Your task to perform on an android device: Clear the cart on newegg.com. Add macbook to the cart on newegg.com Image 0: 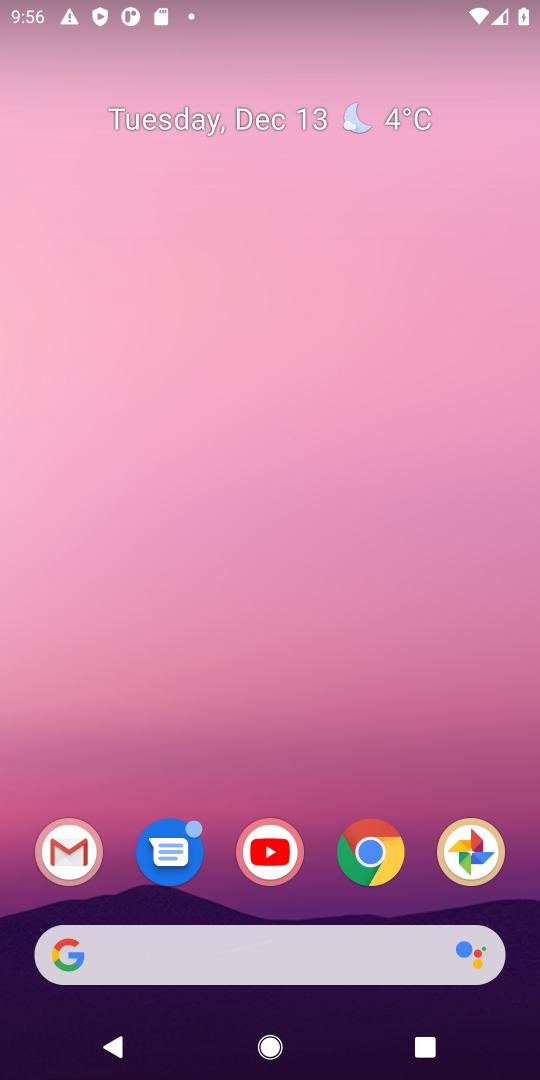
Step 0: press home button
Your task to perform on an android device: Clear the cart on newegg.com. Add macbook to the cart on newegg.com Image 1: 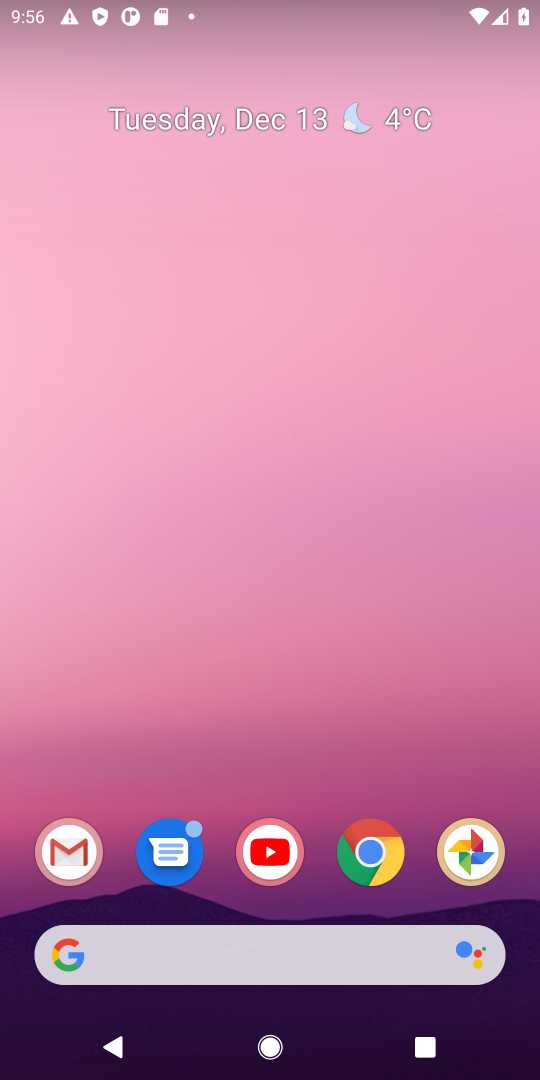
Step 1: click (111, 945)
Your task to perform on an android device: Clear the cart on newegg.com. Add macbook to the cart on newegg.com Image 2: 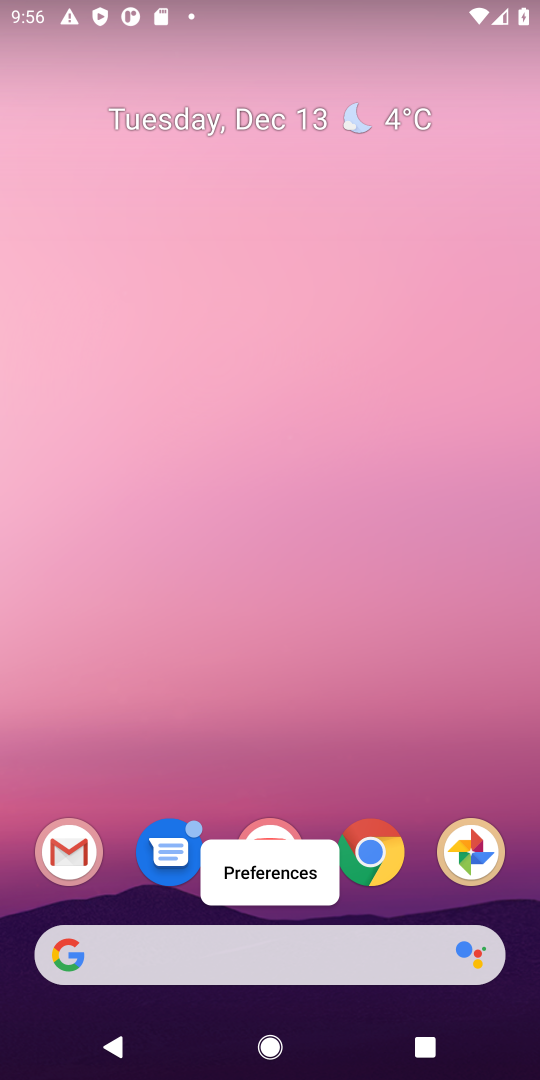
Step 2: click (120, 961)
Your task to perform on an android device: Clear the cart on newegg.com. Add macbook to the cart on newegg.com Image 3: 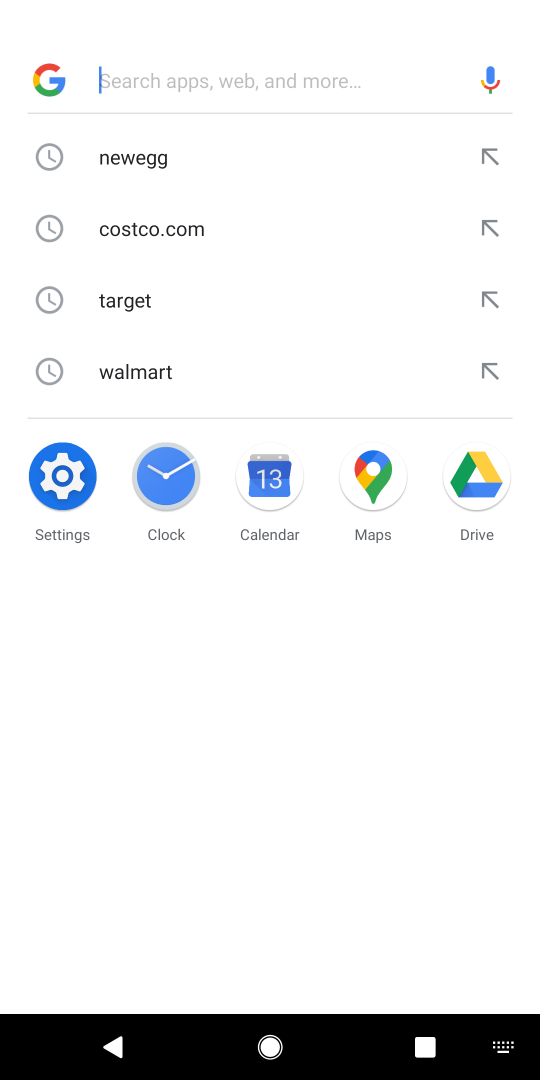
Step 3: type "newegg.com"
Your task to perform on an android device: Clear the cart on newegg.com. Add macbook to the cart on newegg.com Image 4: 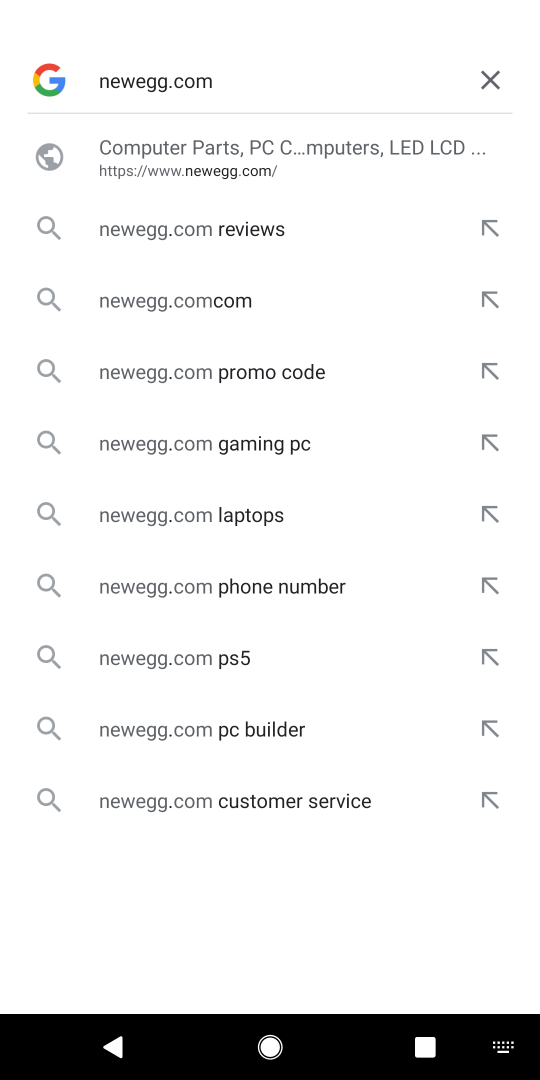
Step 4: press enter
Your task to perform on an android device: Clear the cart on newegg.com. Add macbook to the cart on newegg.com Image 5: 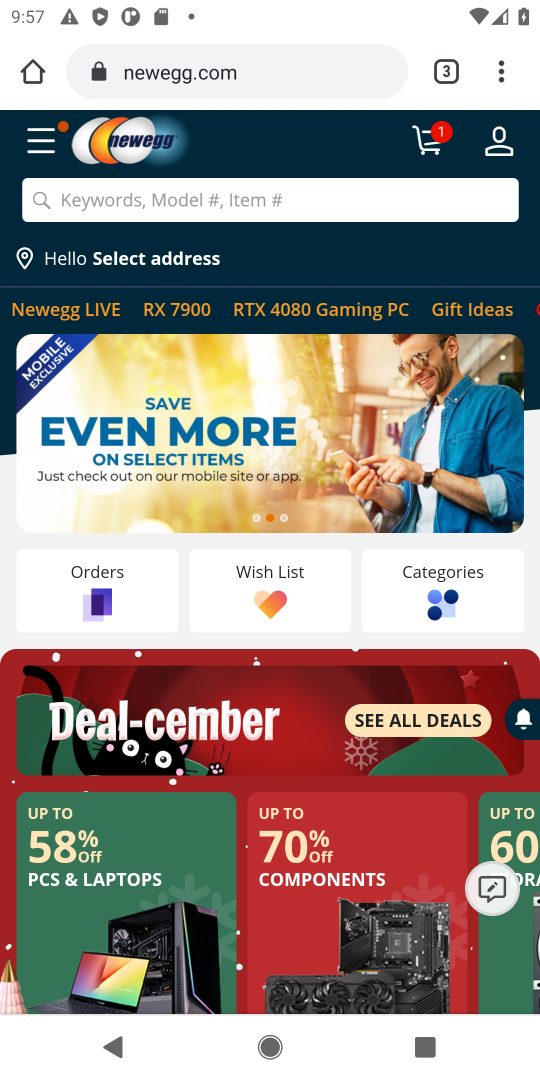
Step 5: click (431, 147)
Your task to perform on an android device: Clear the cart on newegg.com. Add macbook to the cart on newegg.com Image 6: 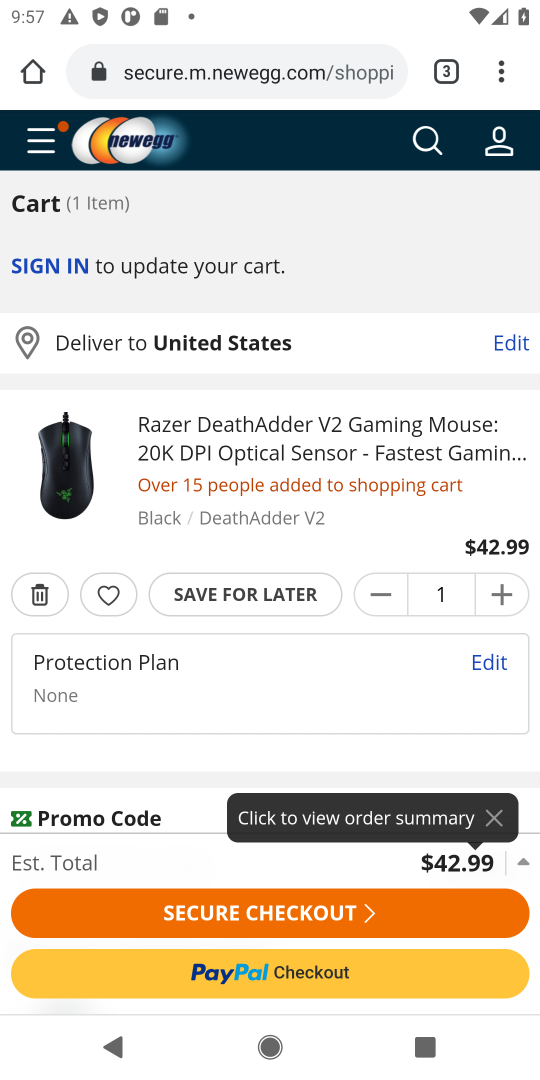
Step 6: click (38, 591)
Your task to perform on an android device: Clear the cart on newegg.com. Add macbook to the cart on newegg.com Image 7: 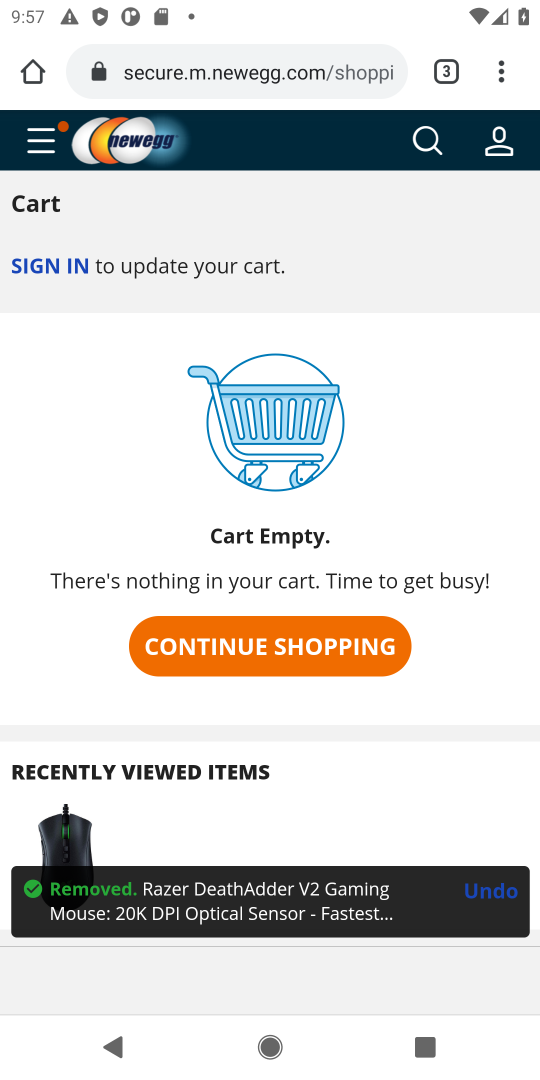
Step 7: click (425, 144)
Your task to perform on an android device: Clear the cart on newegg.com. Add macbook to the cart on newegg.com Image 8: 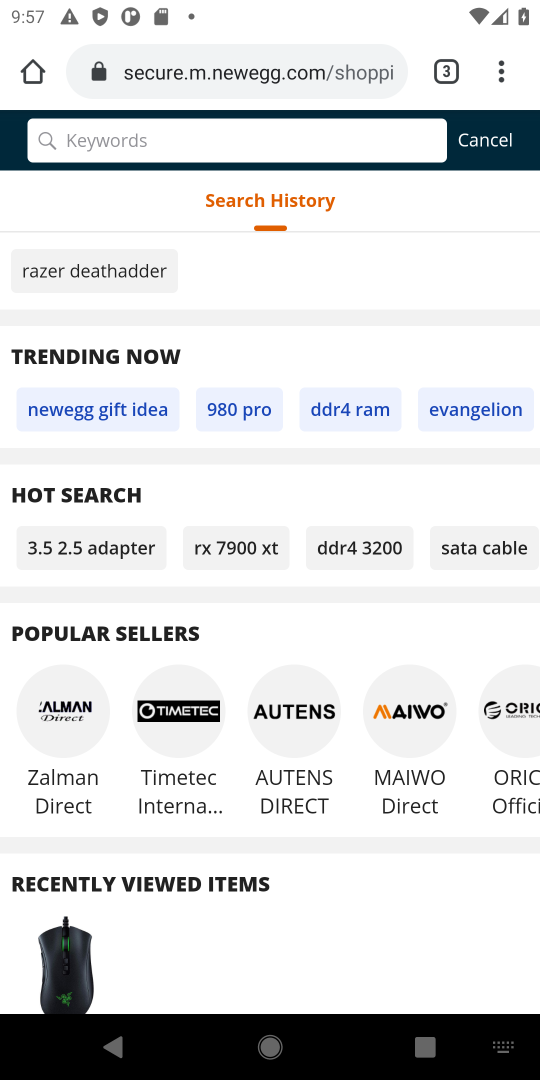
Step 8: type "macbook"
Your task to perform on an android device: Clear the cart on newegg.com. Add macbook to the cart on newegg.com Image 9: 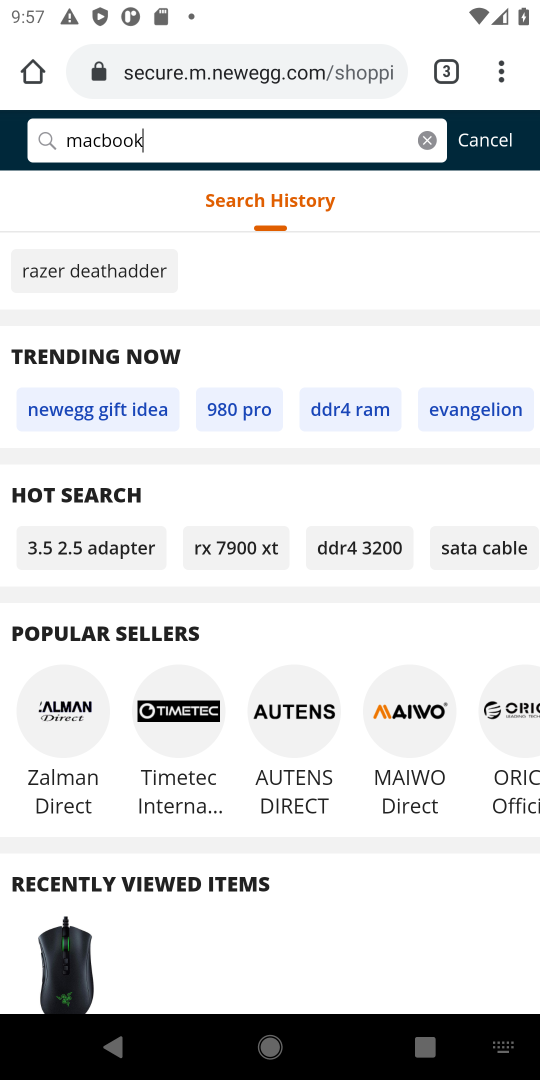
Step 9: press enter
Your task to perform on an android device: Clear the cart on newegg.com. Add macbook to the cart on newegg.com Image 10: 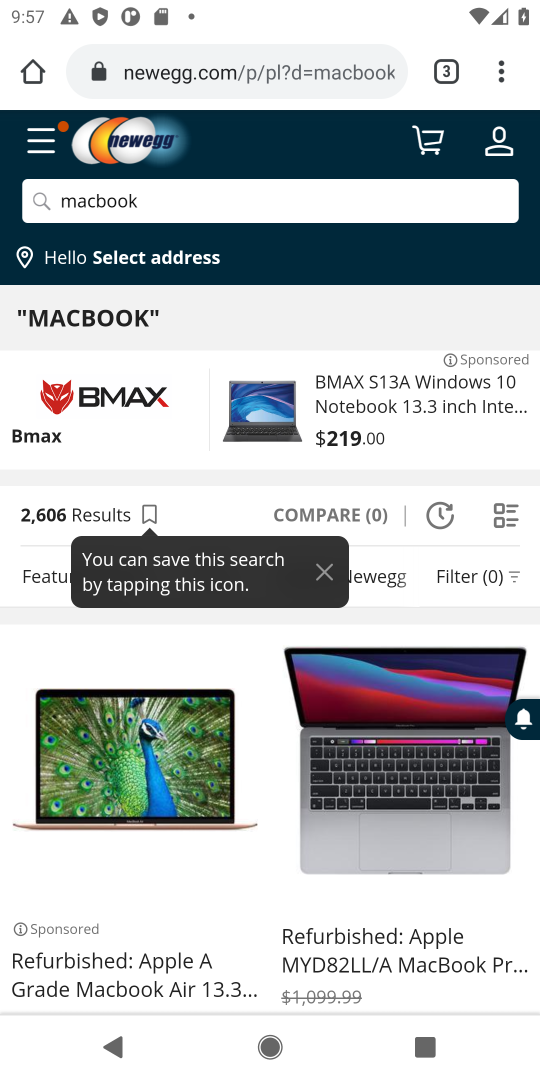
Step 10: drag from (388, 926) to (392, 512)
Your task to perform on an android device: Clear the cart on newegg.com. Add macbook to the cart on newegg.com Image 11: 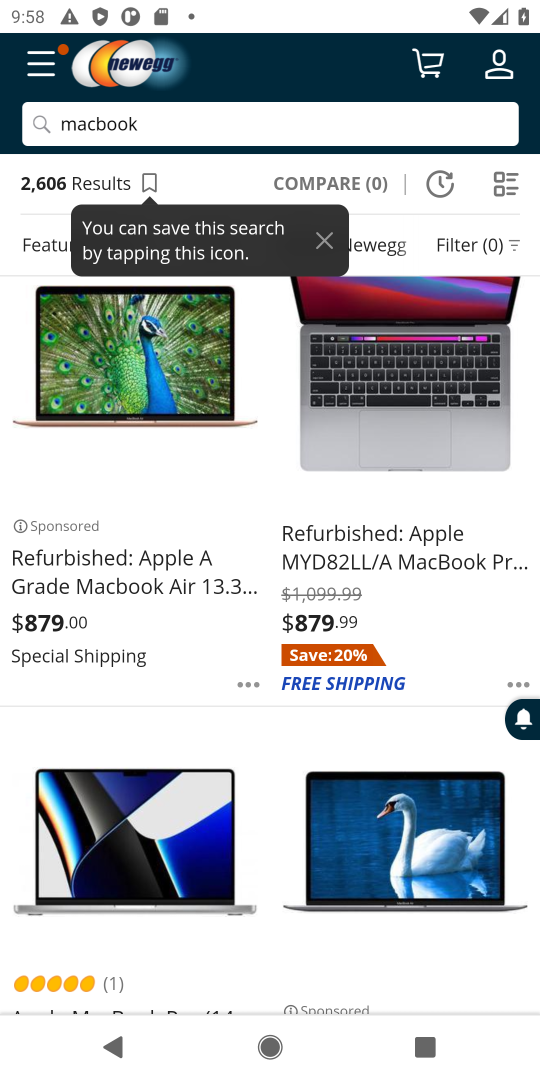
Step 11: drag from (279, 885) to (283, 377)
Your task to perform on an android device: Clear the cart on newegg.com. Add macbook to the cart on newegg.com Image 12: 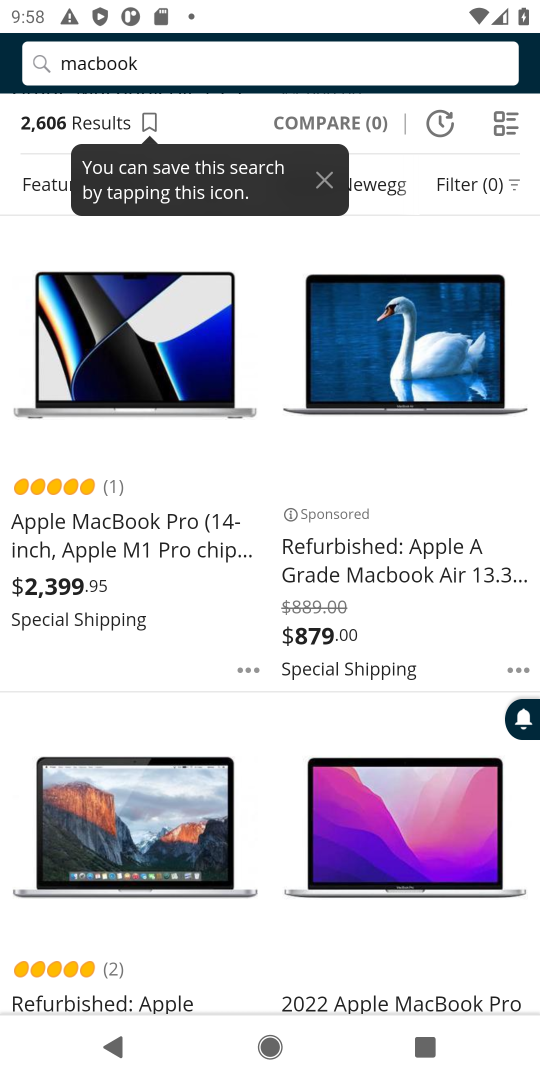
Step 12: click (67, 546)
Your task to perform on an android device: Clear the cart on newegg.com. Add macbook to the cart on newegg.com Image 13: 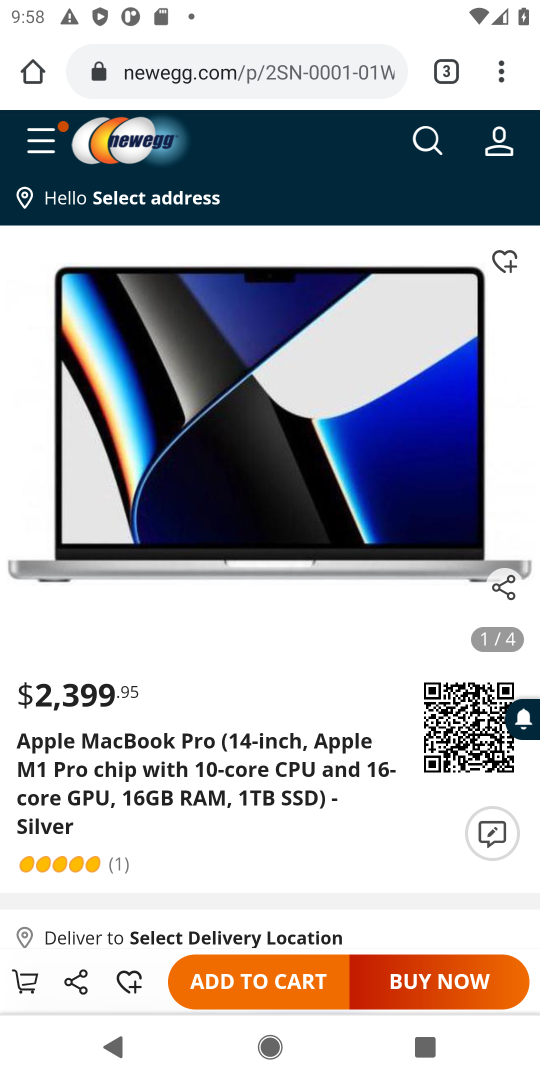
Step 13: drag from (162, 816) to (223, 516)
Your task to perform on an android device: Clear the cart on newegg.com. Add macbook to the cart on newegg.com Image 14: 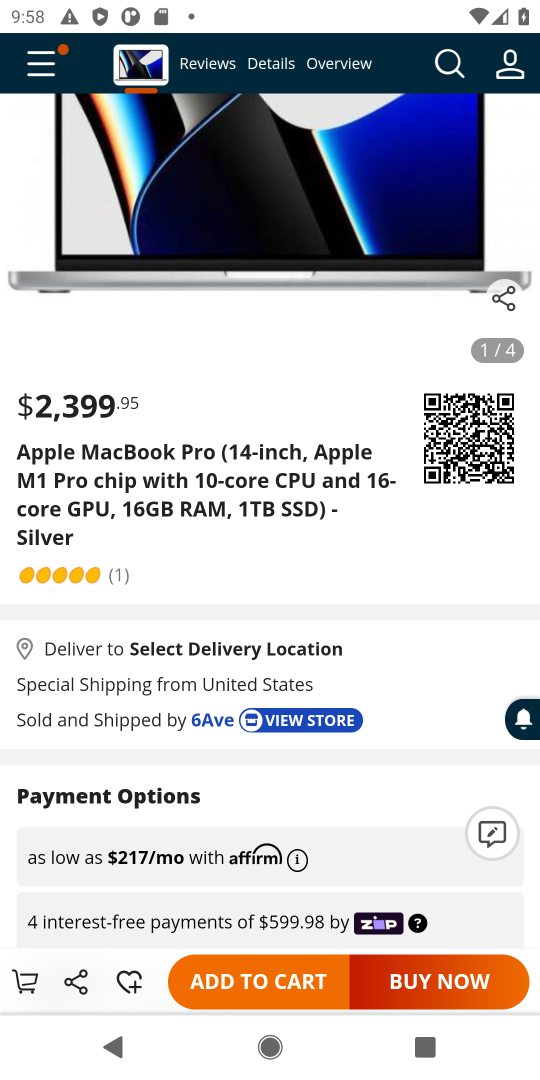
Step 14: drag from (198, 858) to (244, 467)
Your task to perform on an android device: Clear the cart on newegg.com. Add macbook to the cart on newegg.com Image 15: 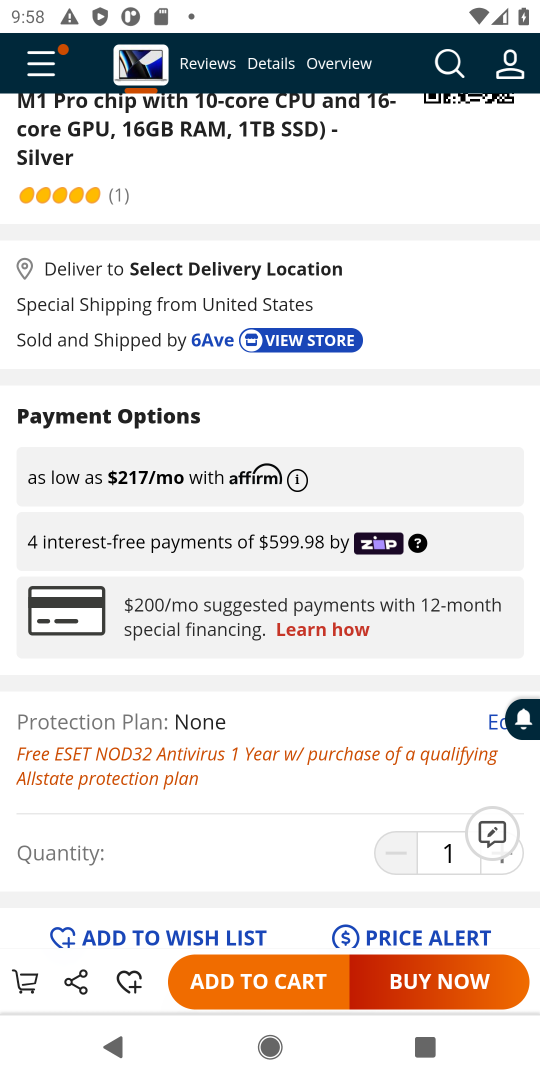
Step 15: drag from (215, 856) to (260, 542)
Your task to perform on an android device: Clear the cart on newegg.com. Add macbook to the cart on newegg.com Image 16: 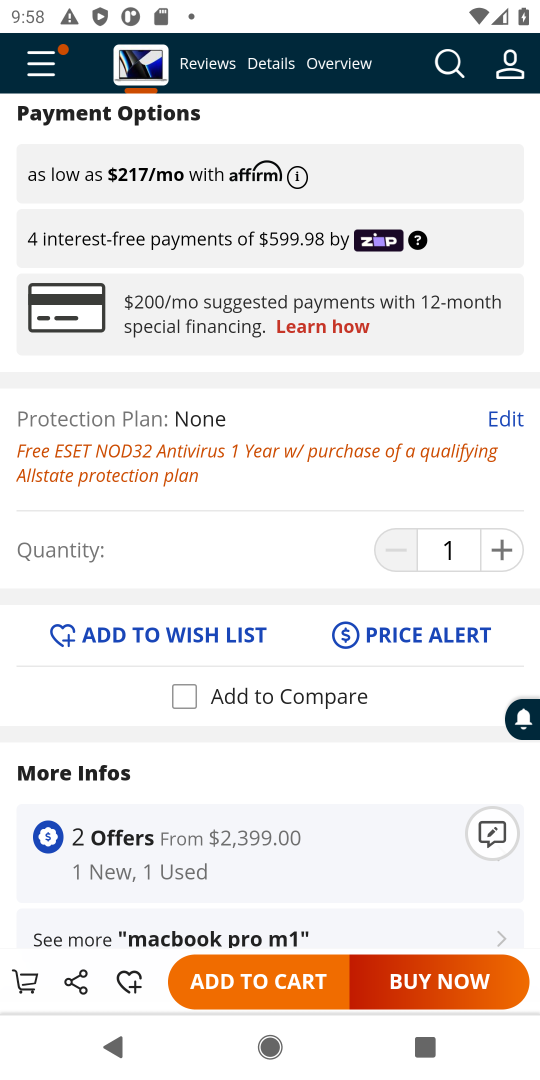
Step 16: click (242, 987)
Your task to perform on an android device: Clear the cart on newegg.com. Add macbook to the cart on newegg.com Image 17: 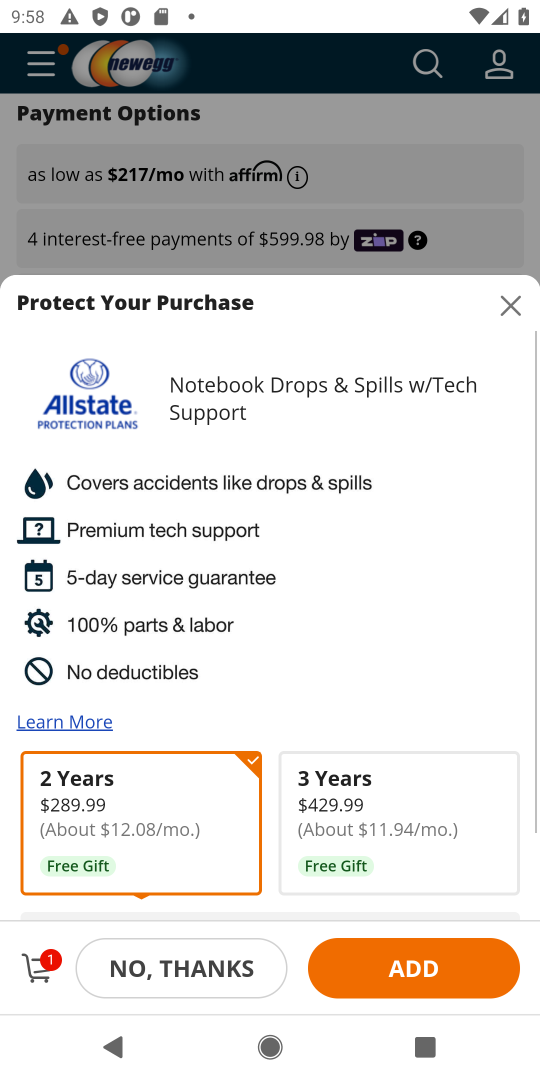
Step 17: click (181, 984)
Your task to perform on an android device: Clear the cart on newegg.com. Add macbook to the cart on newegg.com Image 18: 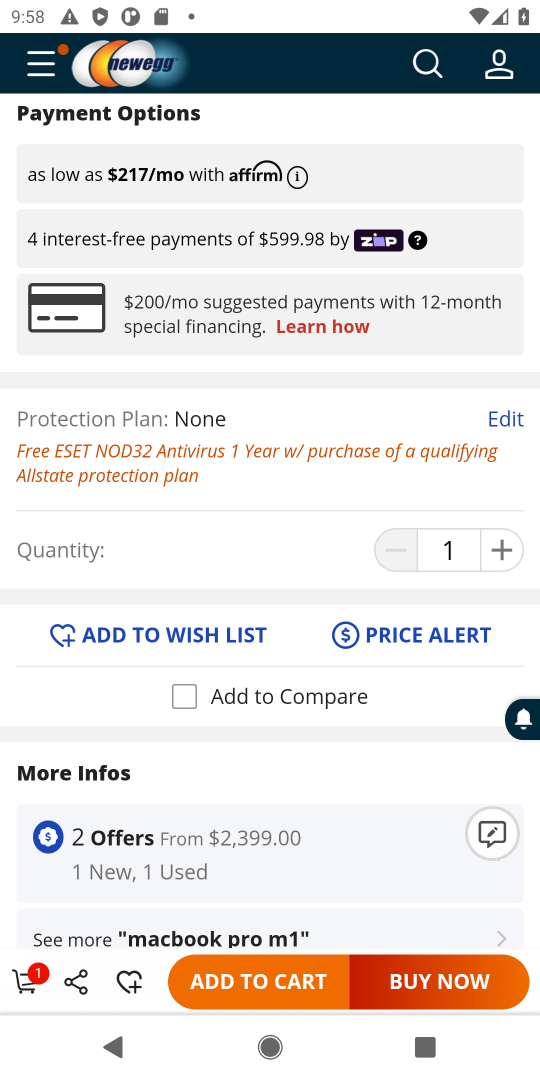
Step 18: task complete